Your task to perform on an android device: Show me recent news Image 0: 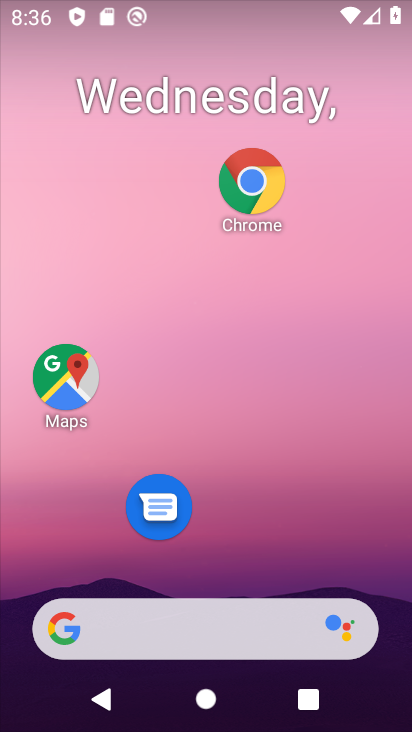
Step 0: drag from (242, 557) to (281, 227)
Your task to perform on an android device: Show me recent news Image 1: 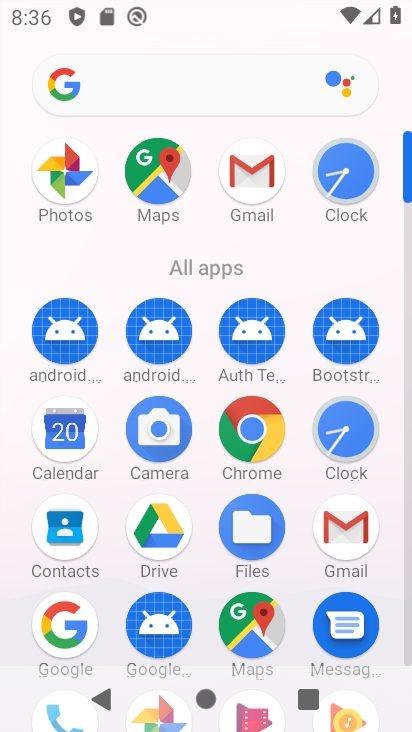
Step 1: click (69, 631)
Your task to perform on an android device: Show me recent news Image 2: 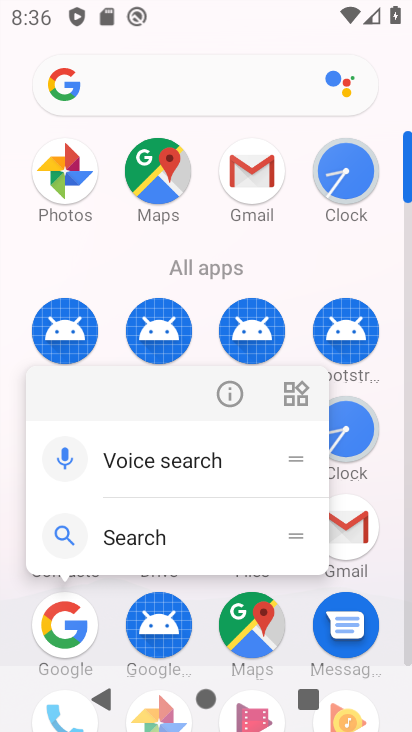
Step 2: click (73, 628)
Your task to perform on an android device: Show me recent news Image 3: 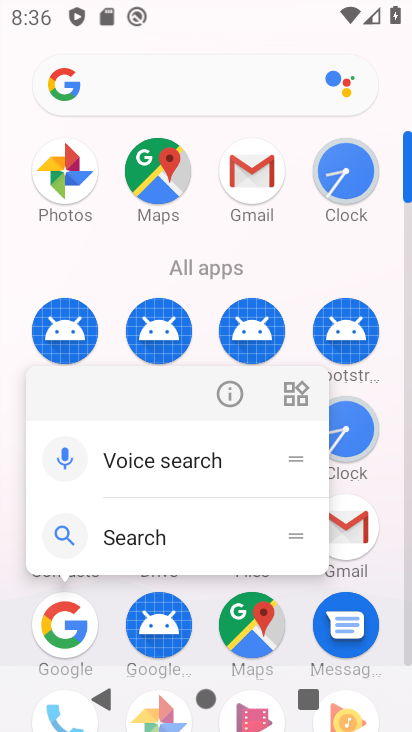
Step 3: click (74, 628)
Your task to perform on an android device: Show me recent news Image 4: 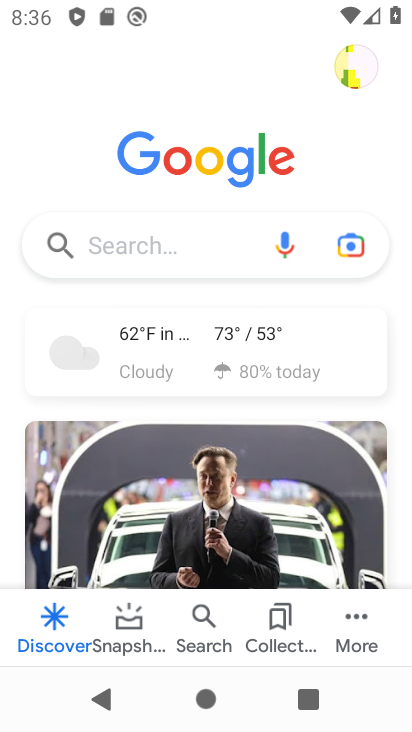
Step 4: click (357, 636)
Your task to perform on an android device: Show me recent news Image 5: 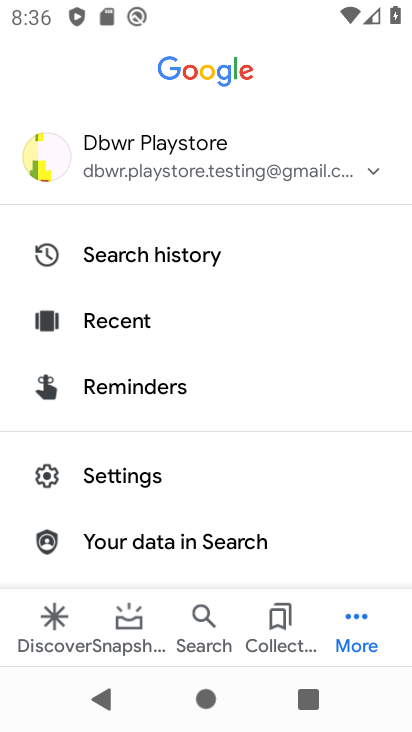
Step 5: click (72, 629)
Your task to perform on an android device: Show me recent news Image 6: 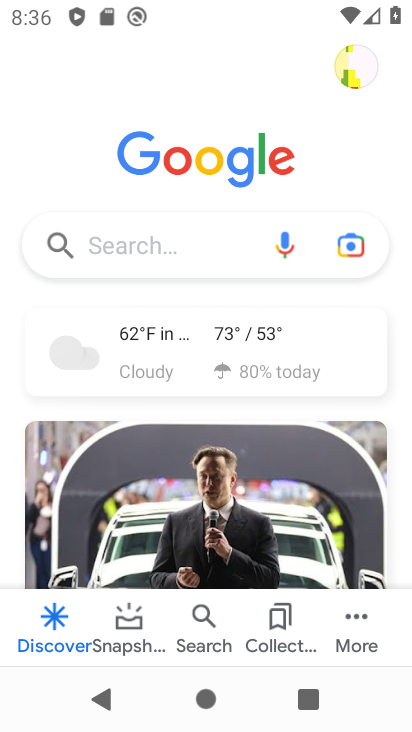
Step 6: click (165, 261)
Your task to perform on an android device: Show me recent news Image 7: 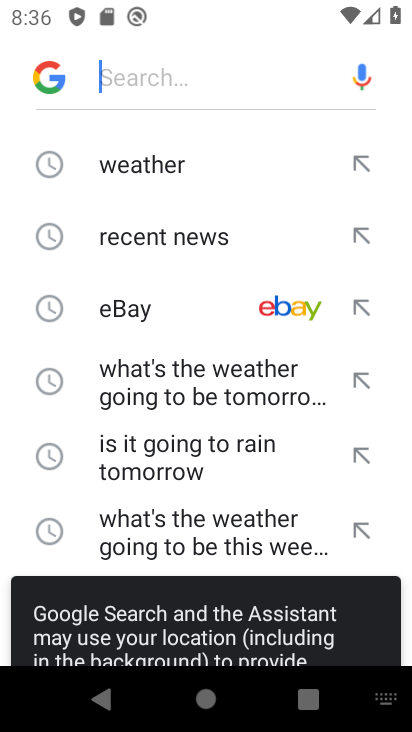
Step 7: click (175, 237)
Your task to perform on an android device: Show me recent news Image 8: 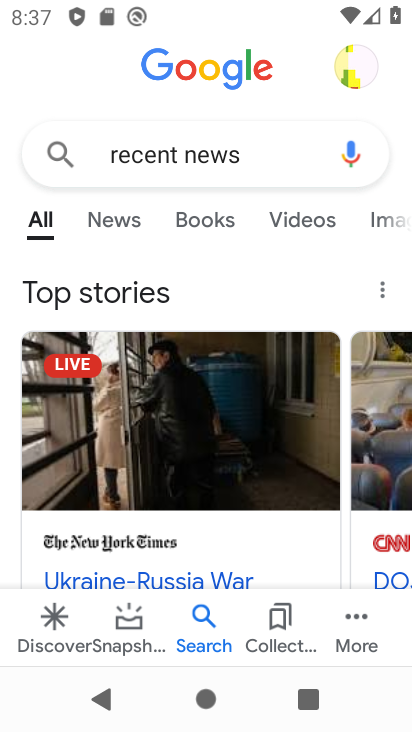
Step 8: click (116, 222)
Your task to perform on an android device: Show me recent news Image 9: 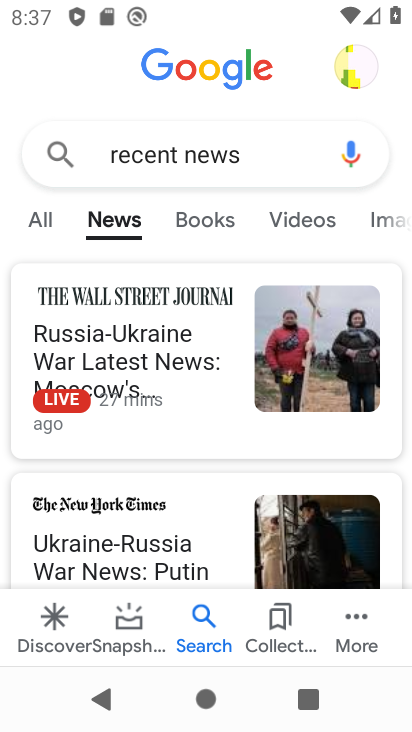
Step 9: task complete